Your task to perform on an android device: find photos in the google photos app Image 0: 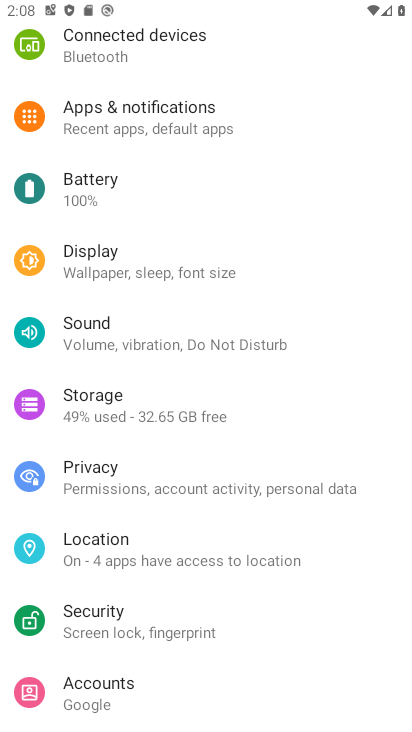
Step 0: press home button
Your task to perform on an android device: find photos in the google photos app Image 1: 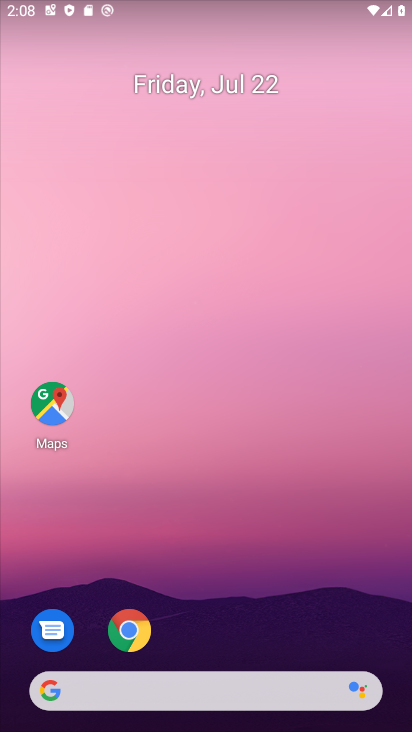
Step 1: drag from (185, 670) to (143, 4)
Your task to perform on an android device: find photos in the google photos app Image 2: 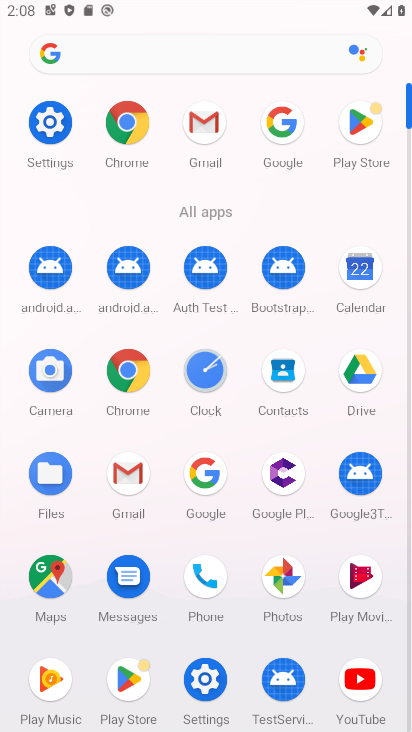
Step 2: click (284, 588)
Your task to perform on an android device: find photos in the google photos app Image 3: 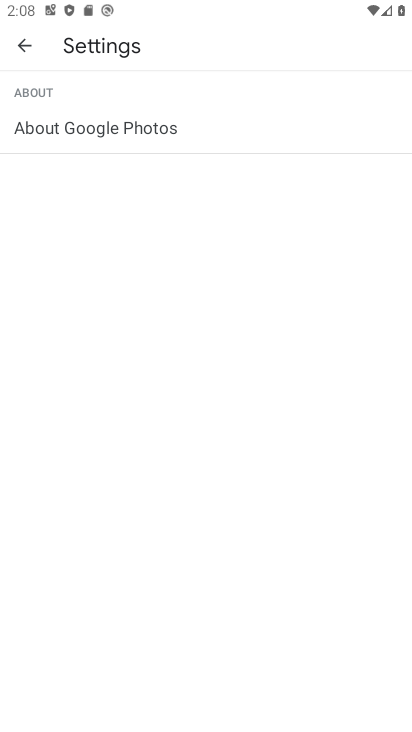
Step 3: click (27, 53)
Your task to perform on an android device: find photos in the google photos app Image 4: 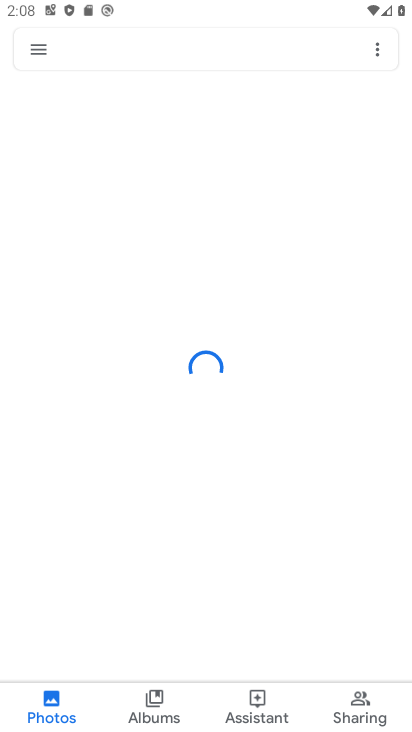
Step 4: task complete